Your task to perform on an android device: Open network settings Image 0: 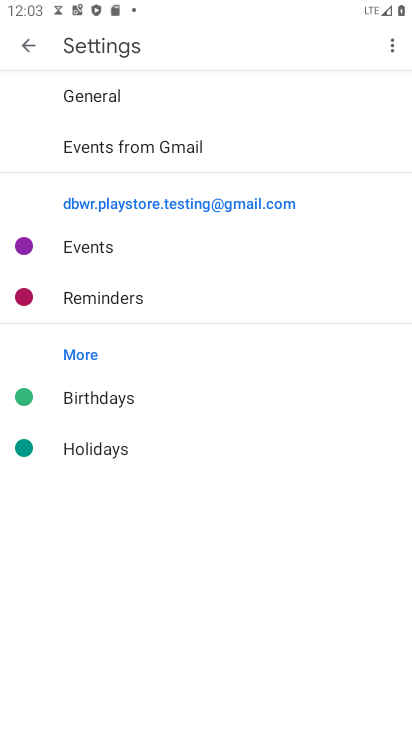
Step 0: press home button
Your task to perform on an android device: Open network settings Image 1: 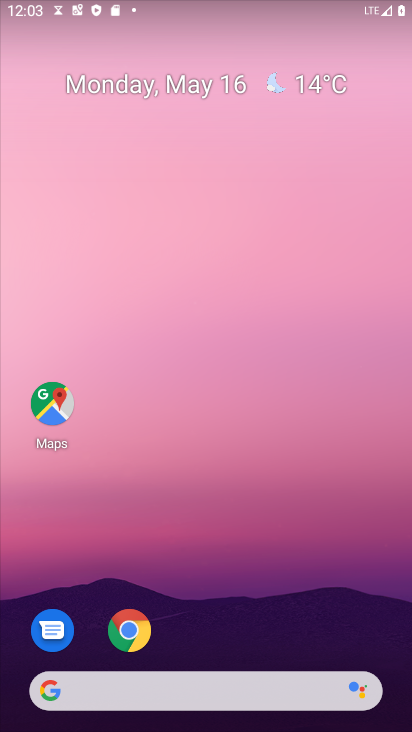
Step 1: drag from (35, 583) to (332, 104)
Your task to perform on an android device: Open network settings Image 2: 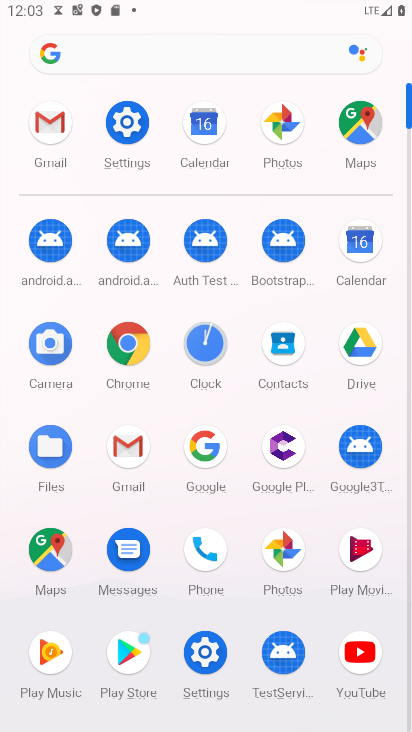
Step 2: click (126, 135)
Your task to perform on an android device: Open network settings Image 3: 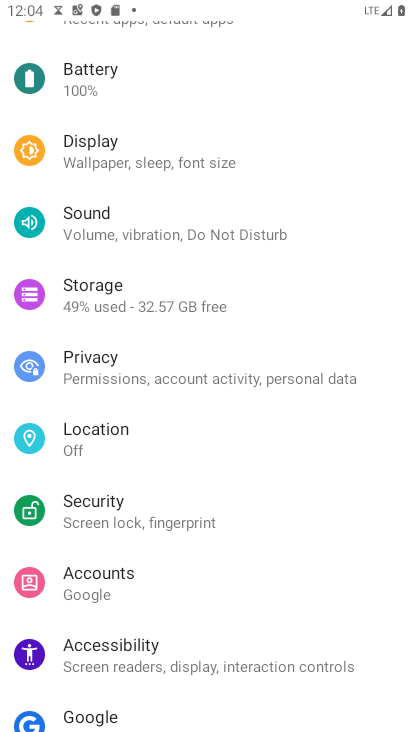
Step 3: drag from (180, 121) to (264, 630)
Your task to perform on an android device: Open network settings Image 4: 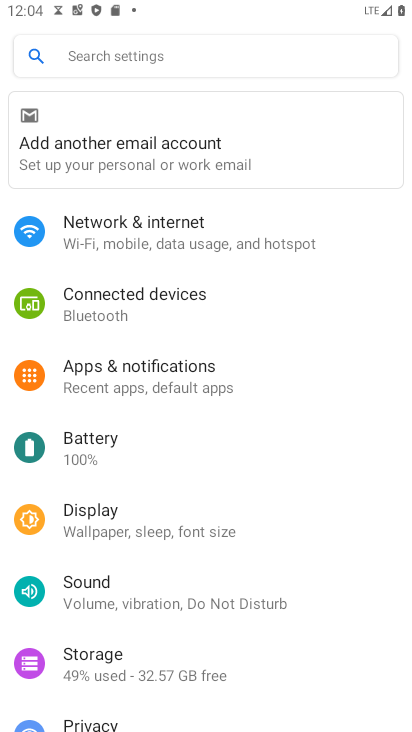
Step 4: click (110, 243)
Your task to perform on an android device: Open network settings Image 5: 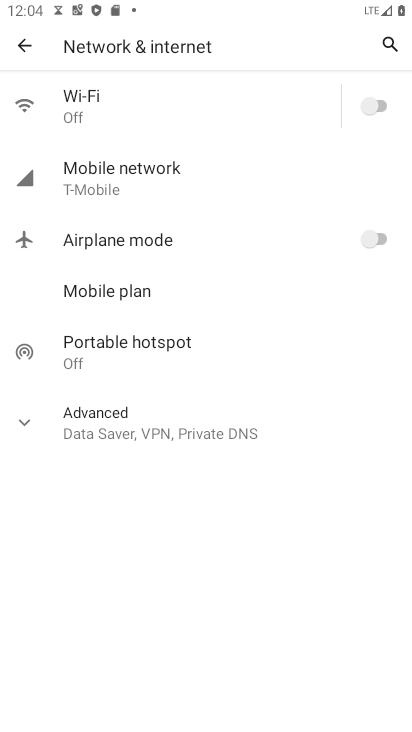
Step 5: task complete